Your task to perform on an android device: Open eBay Image 0: 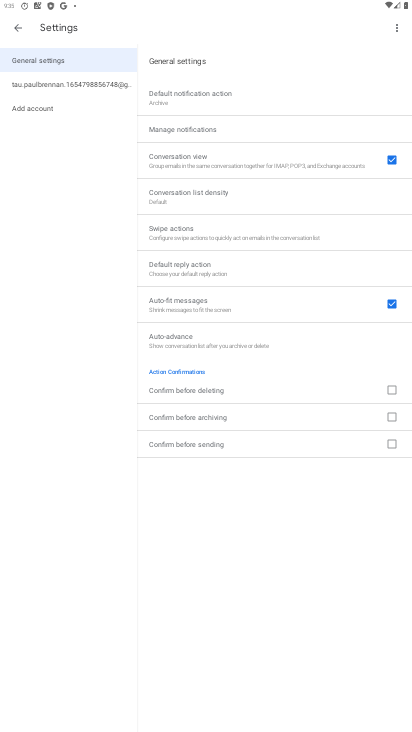
Step 0: press home button
Your task to perform on an android device: Open eBay Image 1: 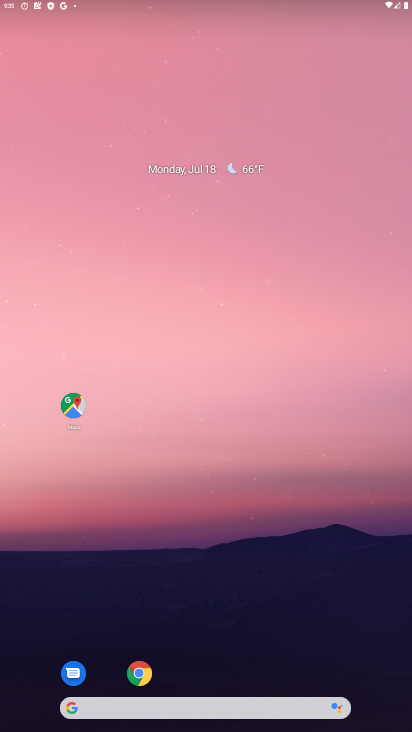
Step 1: drag from (247, 671) to (308, 113)
Your task to perform on an android device: Open eBay Image 2: 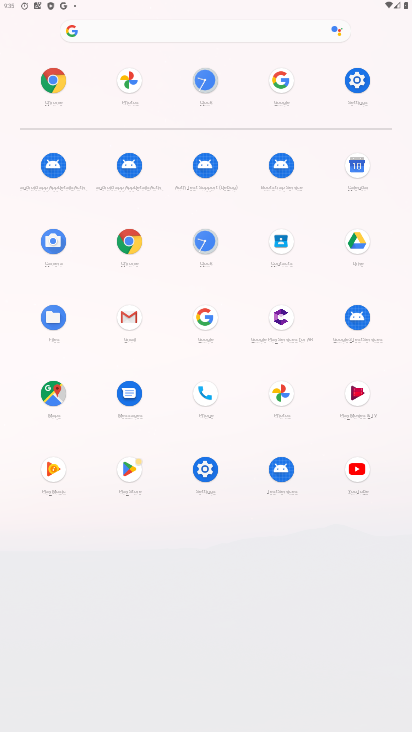
Step 2: click (209, 317)
Your task to perform on an android device: Open eBay Image 3: 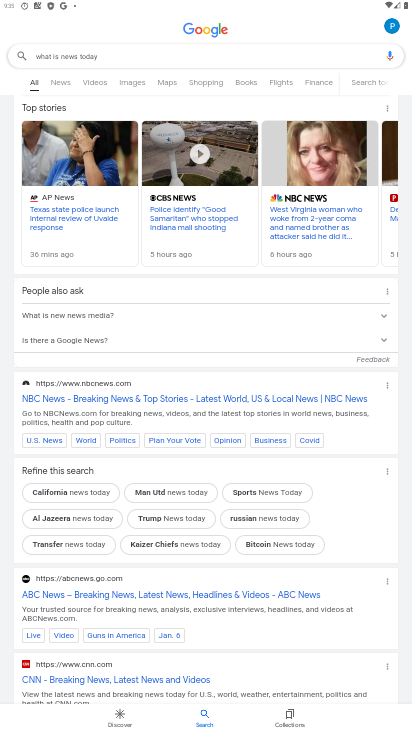
Step 3: click (200, 51)
Your task to perform on an android device: Open eBay Image 4: 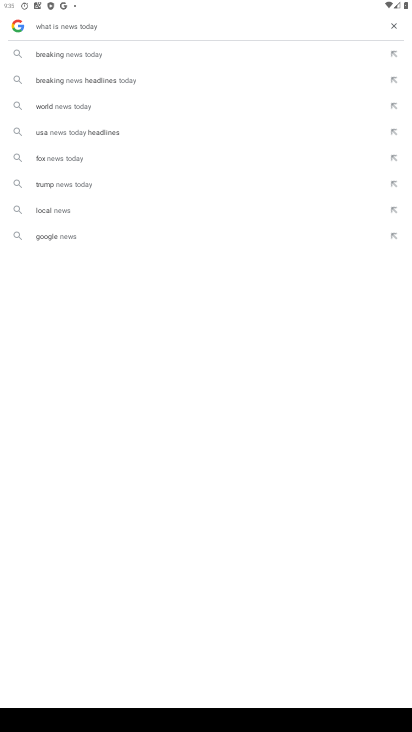
Step 4: click (396, 22)
Your task to perform on an android device: Open eBay Image 5: 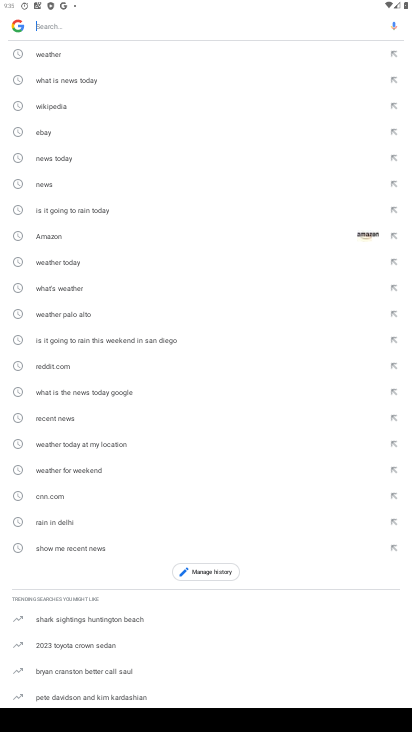
Step 5: click (99, 134)
Your task to perform on an android device: Open eBay Image 6: 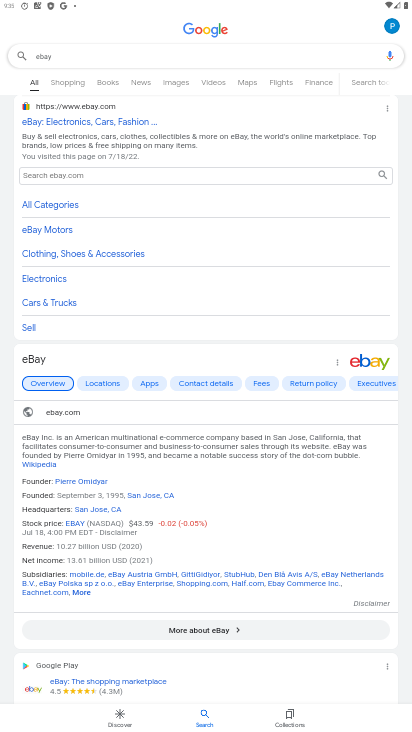
Step 6: click (35, 363)
Your task to perform on an android device: Open eBay Image 7: 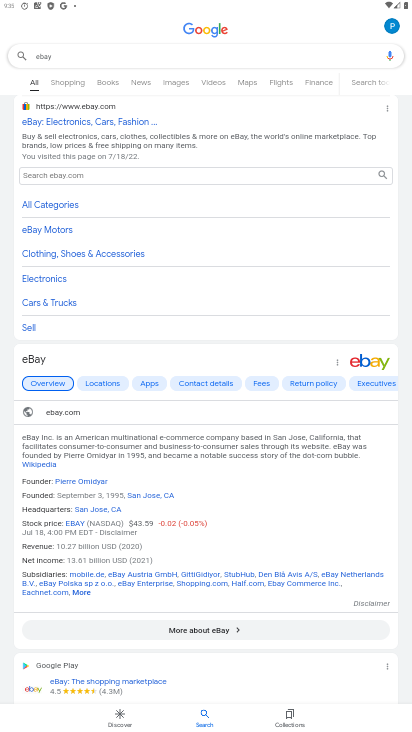
Step 7: click (62, 117)
Your task to perform on an android device: Open eBay Image 8: 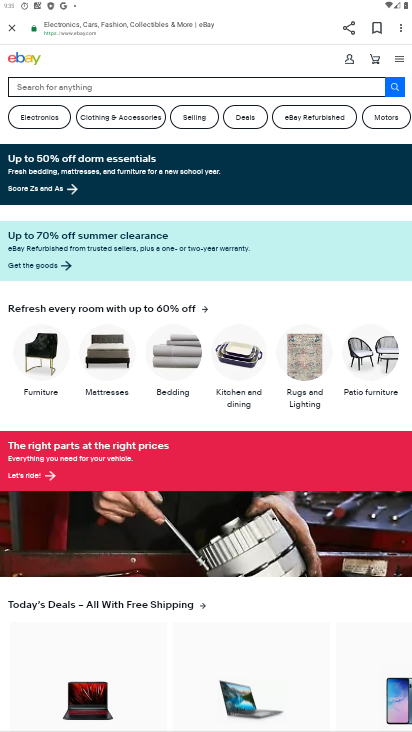
Step 8: task complete